Your task to perform on an android device: remove spam from my inbox in the gmail app Image 0: 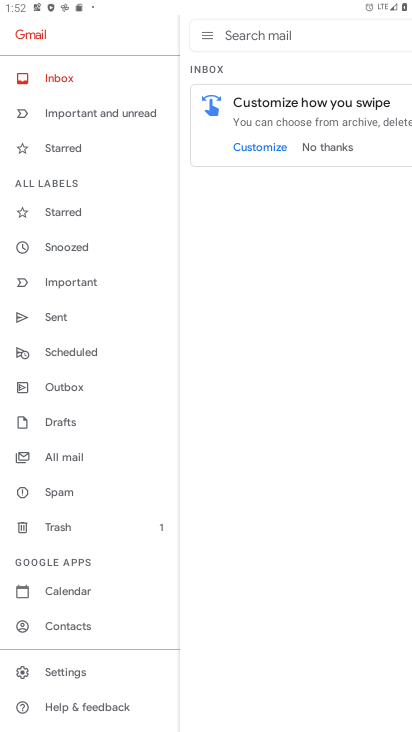
Step 0: press home button
Your task to perform on an android device: remove spam from my inbox in the gmail app Image 1: 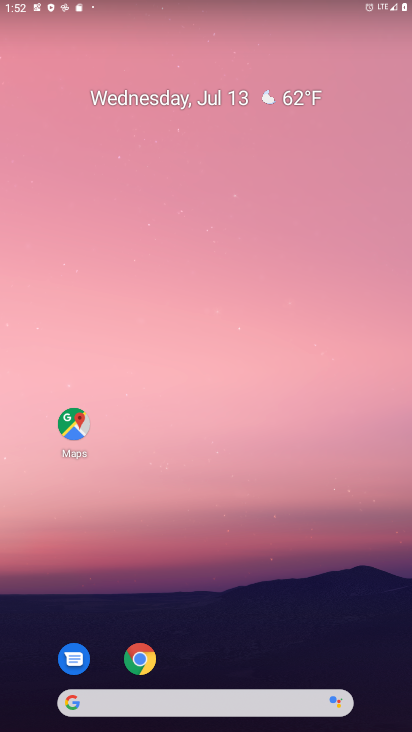
Step 1: drag from (214, 711) to (198, 105)
Your task to perform on an android device: remove spam from my inbox in the gmail app Image 2: 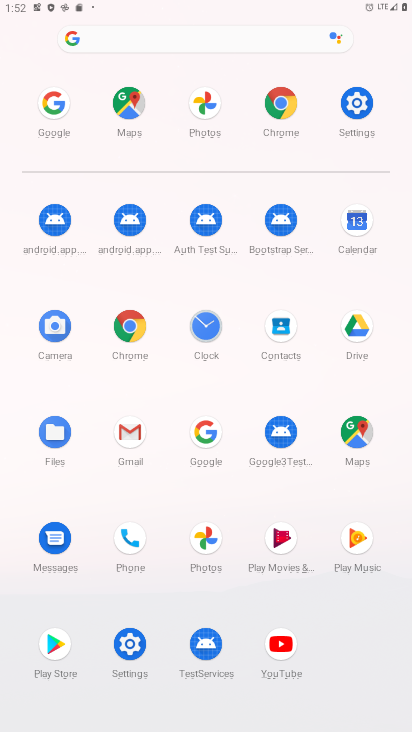
Step 2: click (131, 436)
Your task to perform on an android device: remove spam from my inbox in the gmail app Image 3: 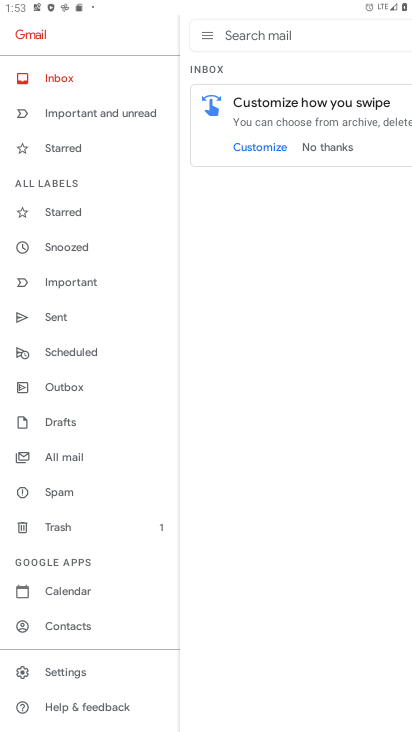
Step 3: click (65, 492)
Your task to perform on an android device: remove spam from my inbox in the gmail app Image 4: 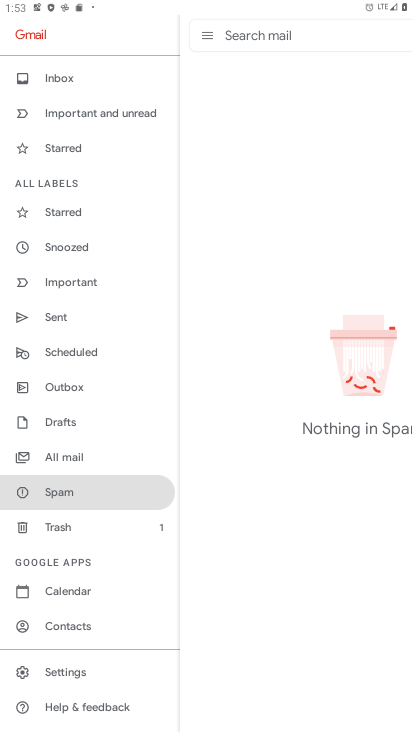
Step 4: click (59, 77)
Your task to perform on an android device: remove spam from my inbox in the gmail app Image 5: 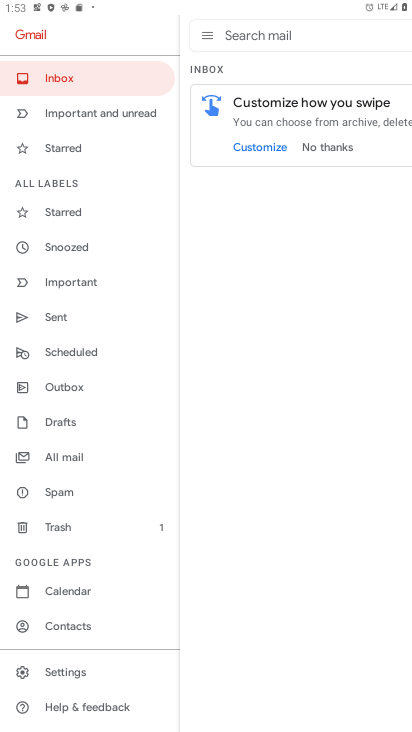
Step 5: task complete